Your task to perform on an android device: Open the web browser Image 0: 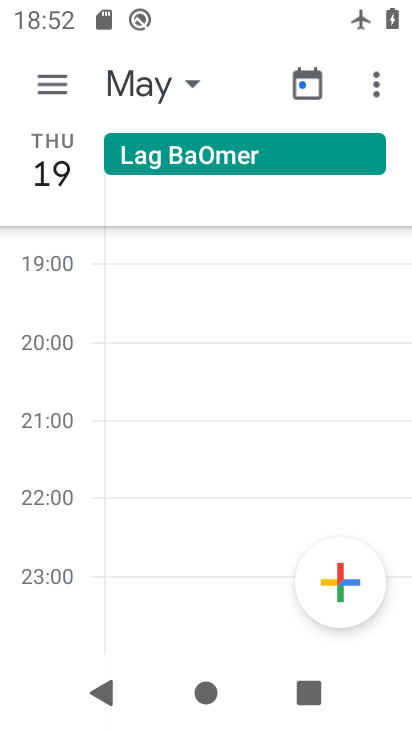
Step 0: press home button
Your task to perform on an android device: Open the web browser Image 1: 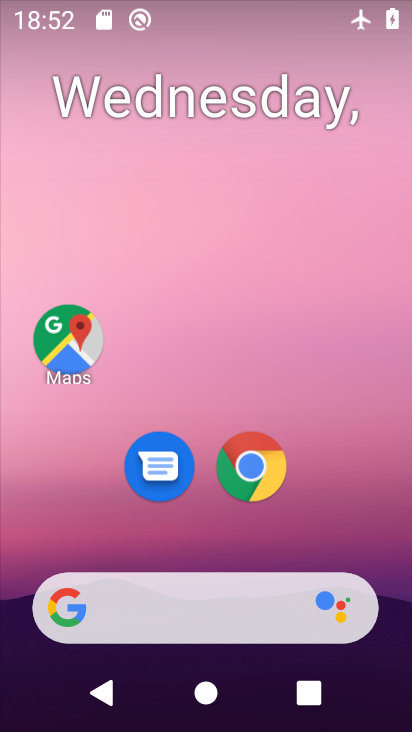
Step 1: click (247, 467)
Your task to perform on an android device: Open the web browser Image 2: 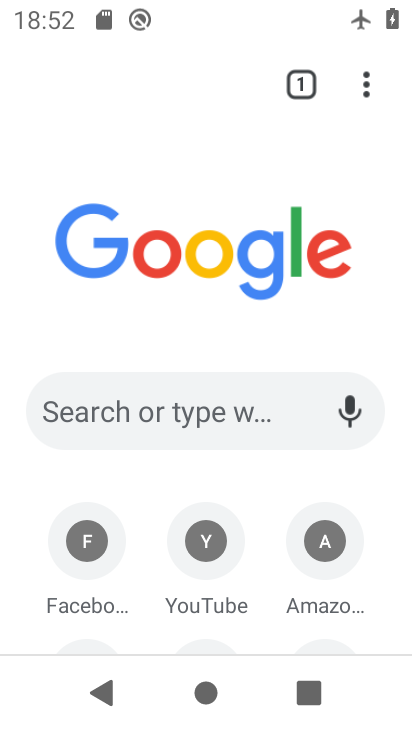
Step 2: task complete